Your task to perform on an android device: Open privacy settings Image 0: 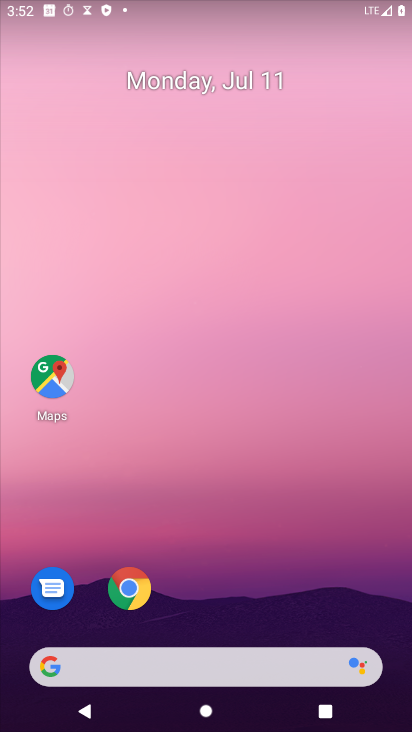
Step 0: drag from (222, 611) to (246, 207)
Your task to perform on an android device: Open privacy settings Image 1: 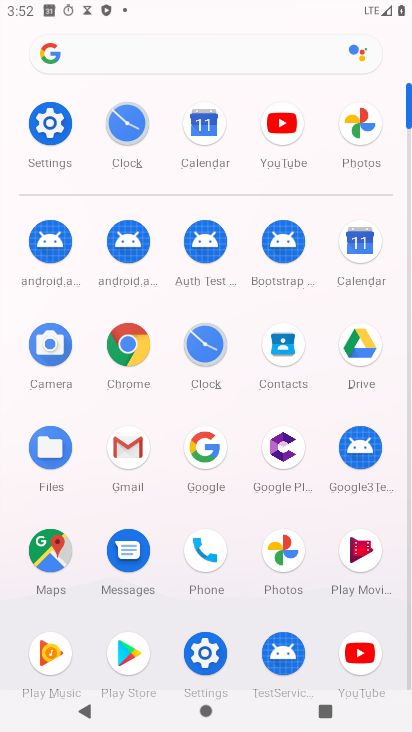
Step 1: click (47, 128)
Your task to perform on an android device: Open privacy settings Image 2: 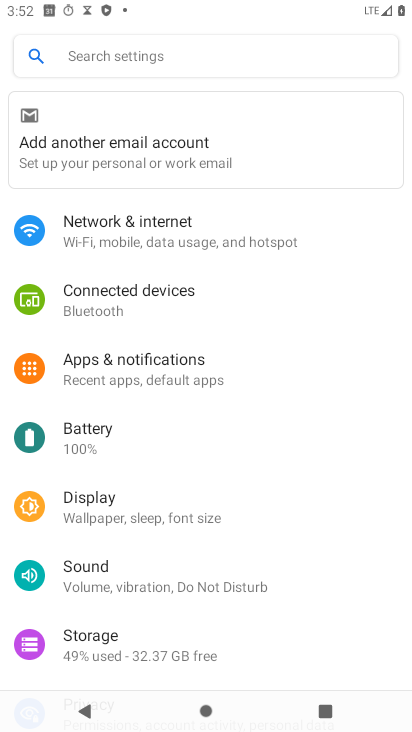
Step 2: drag from (127, 598) to (143, 176)
Your task to perform on an android device: Open privacy settings Image 3: 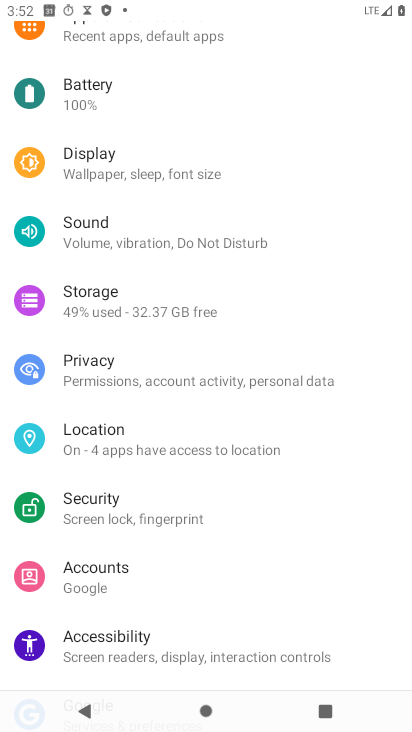
Step 3: click (205, 370)
Your task to perform on an android device: Open privacy settings Image 4: 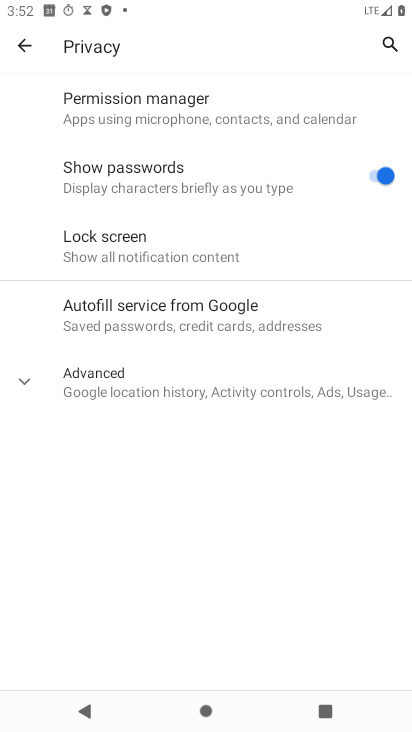
Step 4: task complete